Your task to perform on an android device: add a contact in the contacts app Image 0: 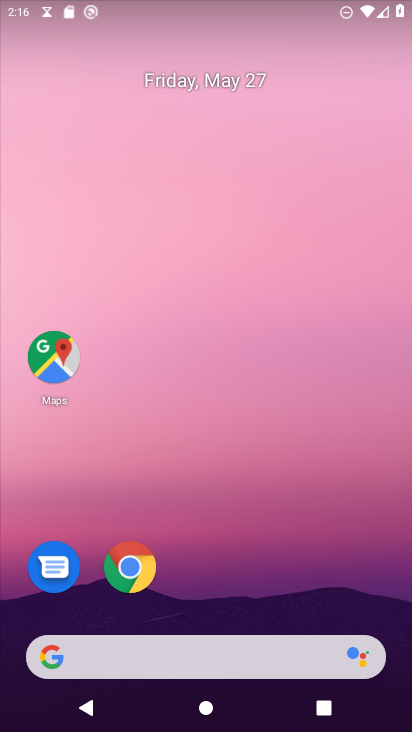
Step 0: drag from (215, 613) to (144, 106)
Your task to perform on an android device: add a contact in the contacts app Image 1: 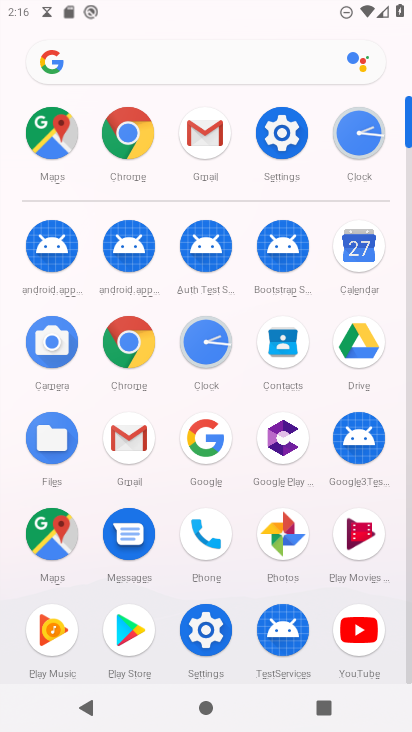
Step 1: click (284, 356)
Your task to perform on an android device: add a contact in the contacts app Image 2: 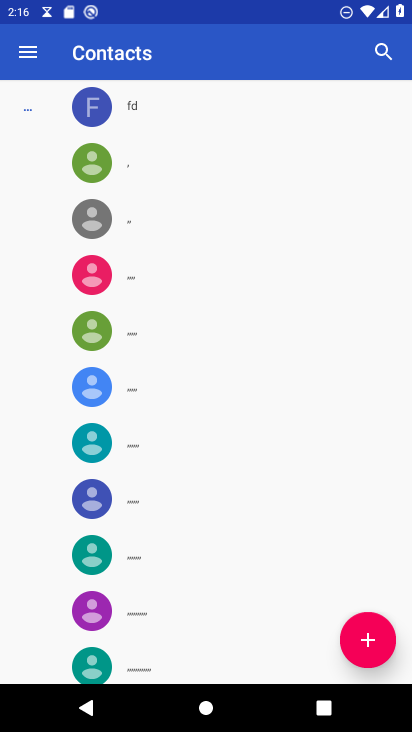
Step 2: click (367, 643)
Your task to perform on an android device: add a contact in the contacts app Image 3: 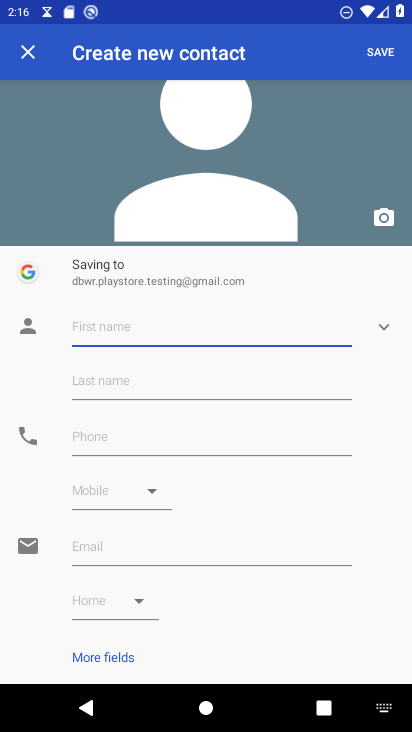
Step 3: click (155, 334)
Your task to perform on an android device: add a contact in the contacts app Image 4: 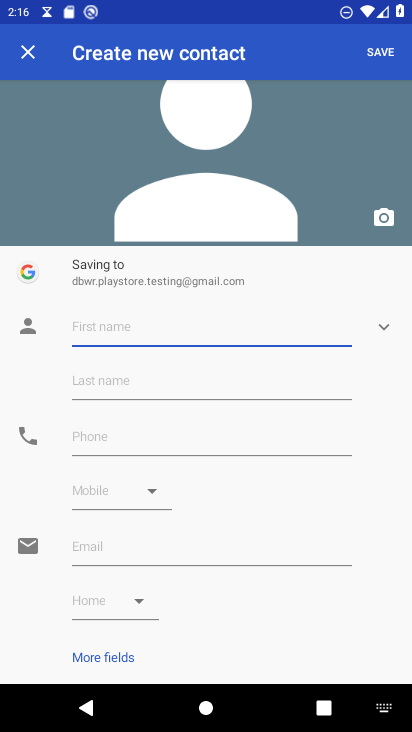
Step 4: type "vhjvjgvgj"
Your task to perform on an android device: add a contact in the contacts app Image 5: 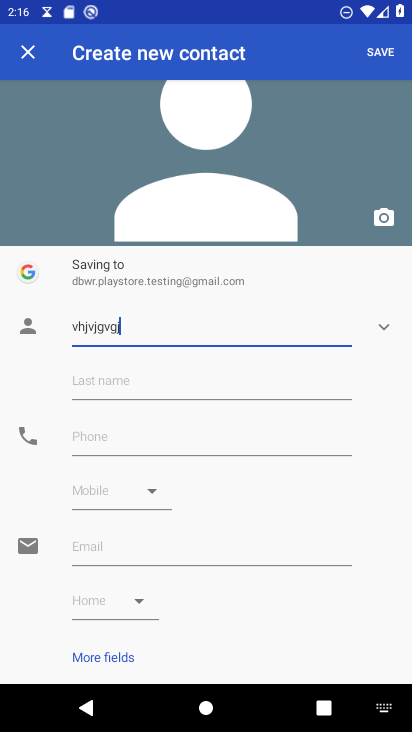
Step 5: click (243, 446)
Your task to perform on an android device: add a contact in the contacts app Image 6: 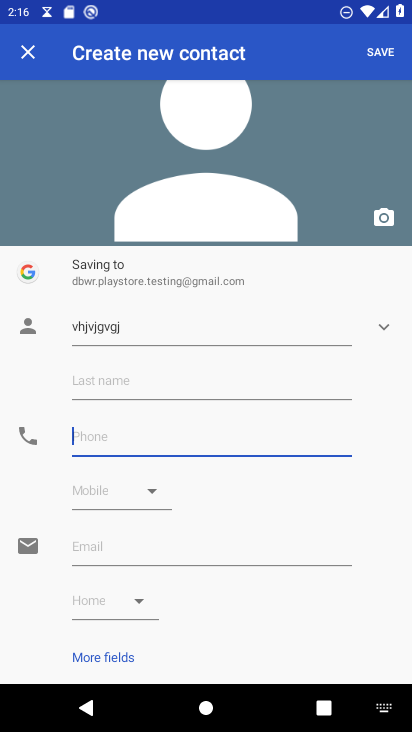
Step 6: type "t876786877"
Your task to perform on an android device: add a contact in the contacts app Image 7: 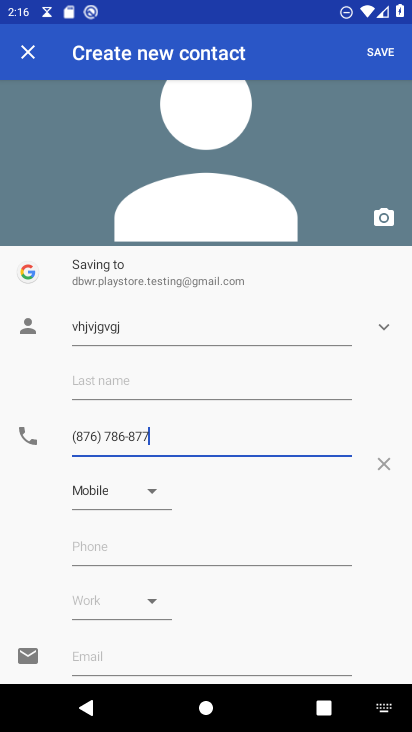
Step 7: click (374, 48)
Your task to perform on an android device: add a contact in the contacts app Image 8: 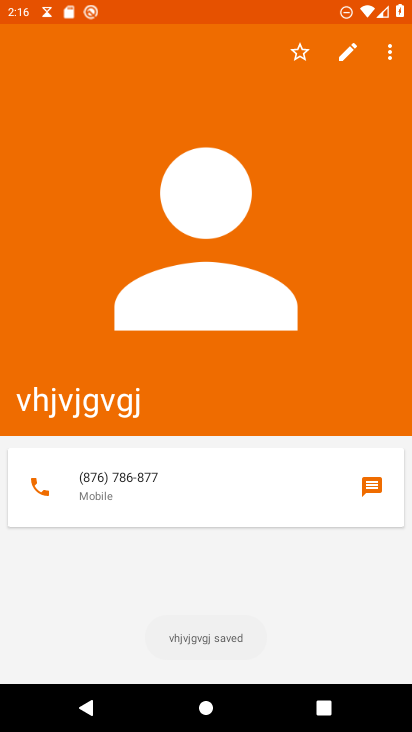
Step 8: task complete